Your task to perform on an android device: allow cookies in the chrome app Image 0: 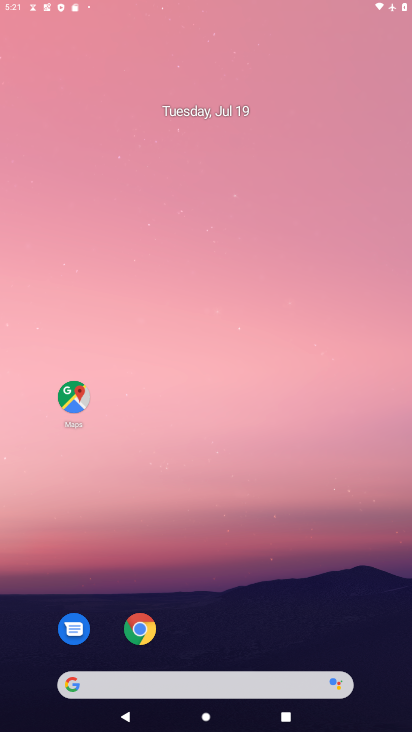
Step 0: press home button
Your task to perform on an android device: allow cookies in the chrome app Image 1: 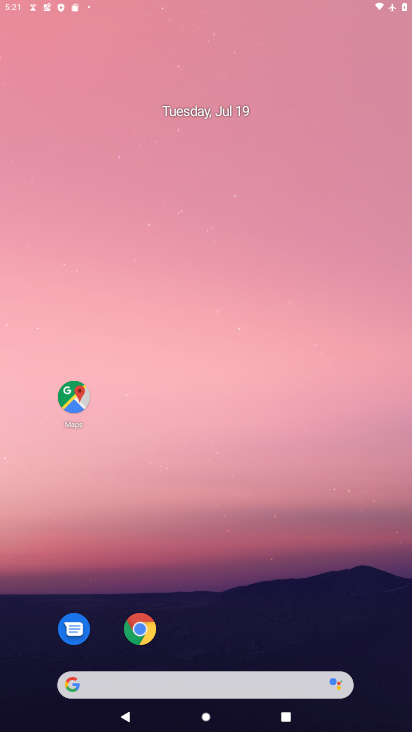
Step 1: click (268, 120)
Your task to perform on an android device: allow cookies in the chrome app Image 2: 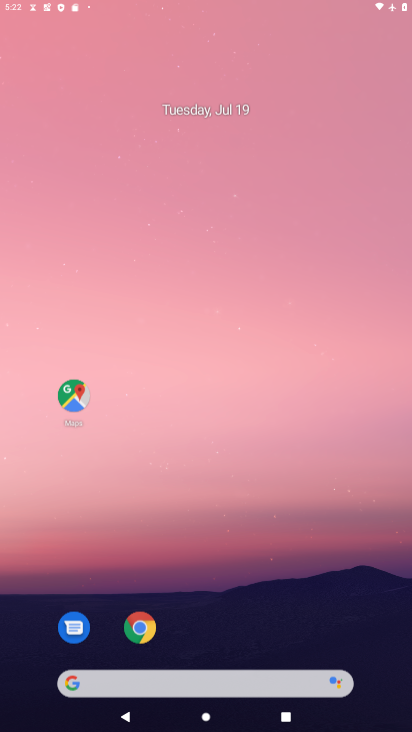
Step 2: drag from (228, 617) to (233, 0)
Your task to perform on an android device: allow cookies in the chrome app Image 3: 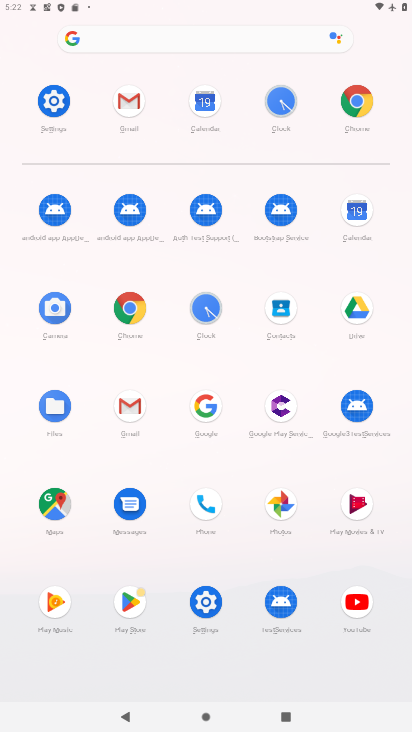
Step 3: click (355, 104)
Your task to perform on an android device: allow cookies in the chrome app Image 4: 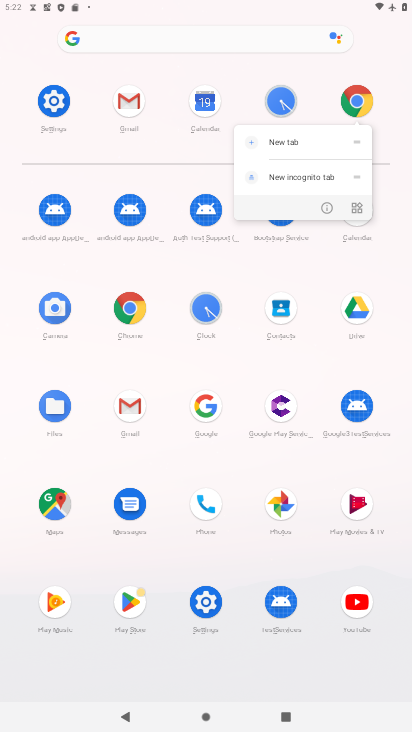
Step 4: click (355, 105)
Your task to perform on an android device: allow cookies in the chrome app Image 5: 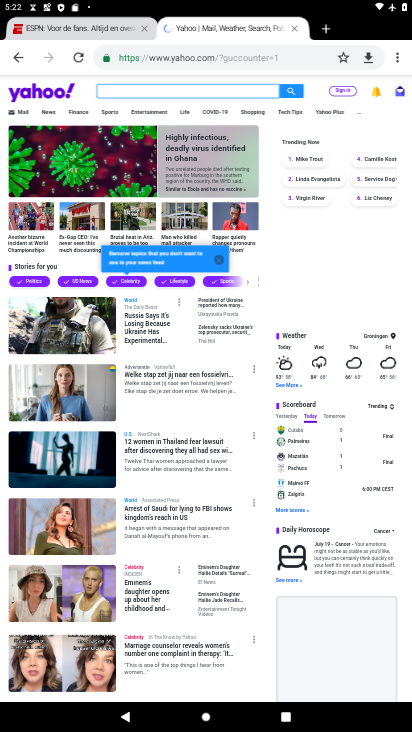
Step 5: drag from (400, 64) to (285, 419)
Your task to perform on an android device: allow cookies in the chrome app Image 6: 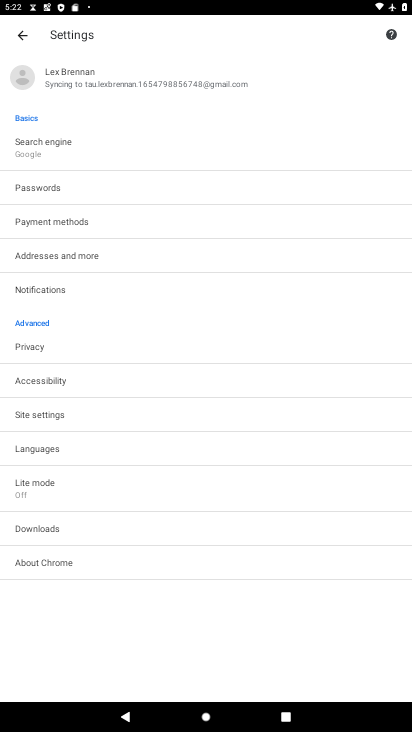
Step 6: click (38, 417)
Your task to perform on an android device: allow cookies in the chrome app Image 7: 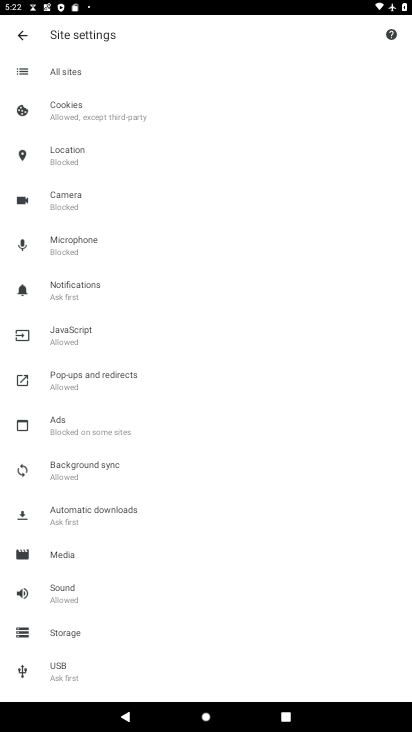
Step 7: click (58, 116)
Your task to perform on an android device: allow cookies in the chrome app Image 8: 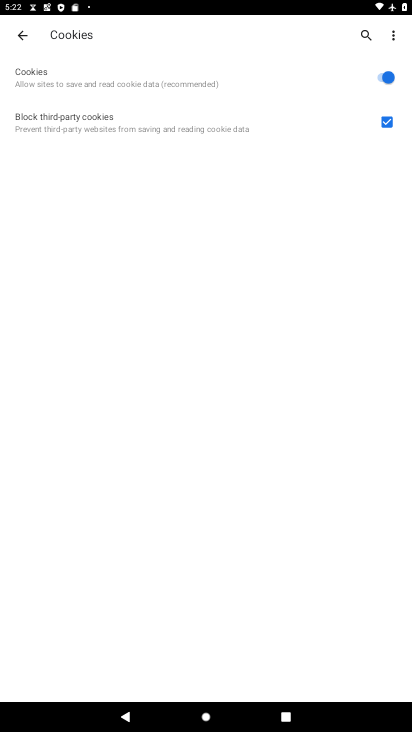
Step 8: task complete